Your task to perform on an android device: install app "WhatsApp Messenger" Image 0: 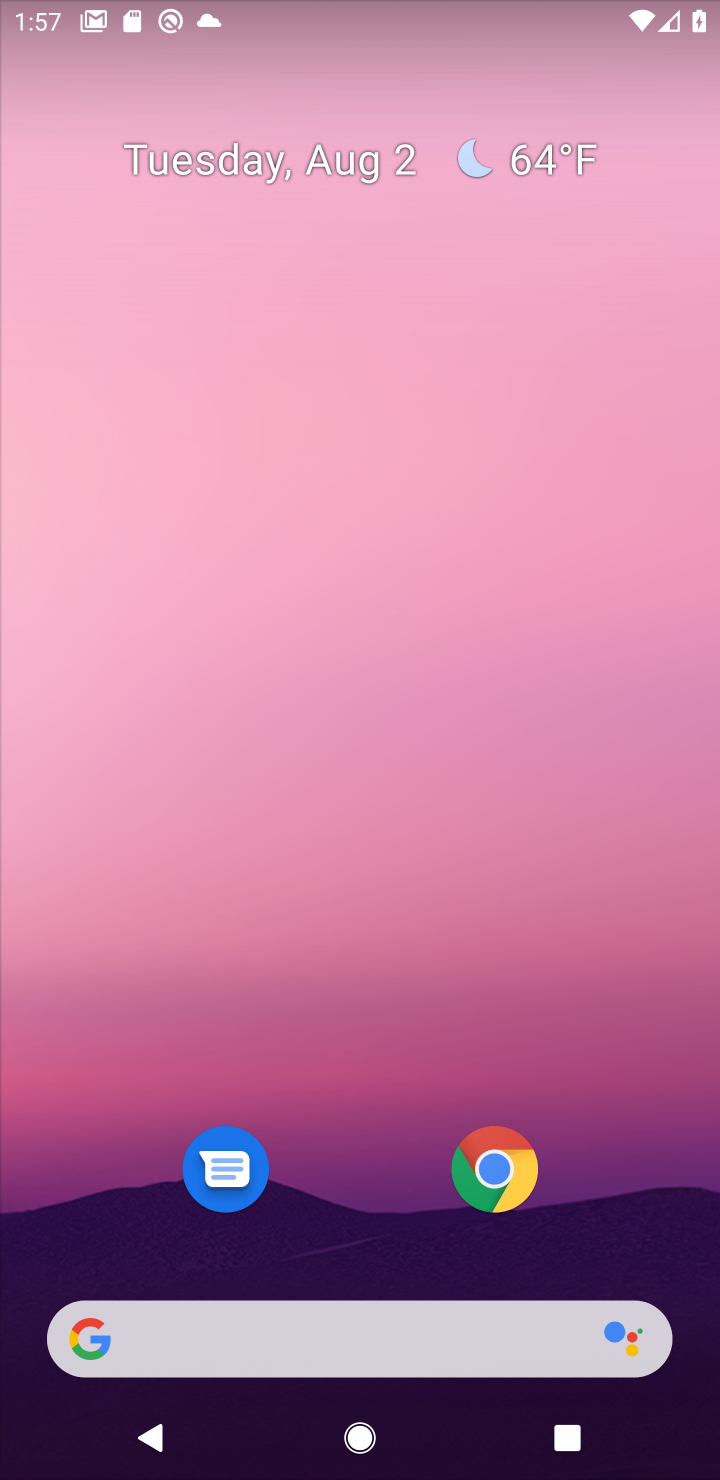
Step 0: drag from (379, 985) to (391, 341)
Your task to perform on an android device: install app "WhatsApp Messenger" Image 1: 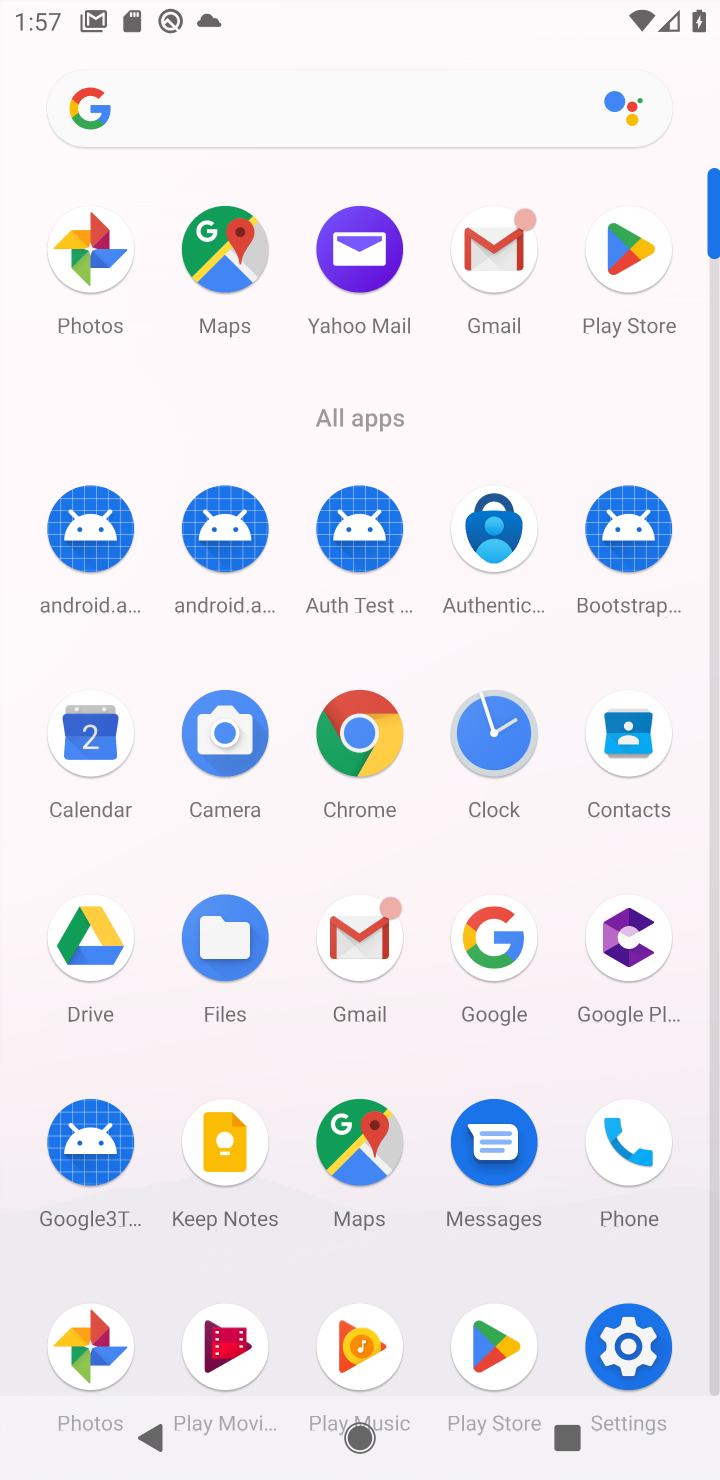
Step 1: click (617, 248)
Your task to perform on an android device: install app "WhatsApp Messenger" Image 2: 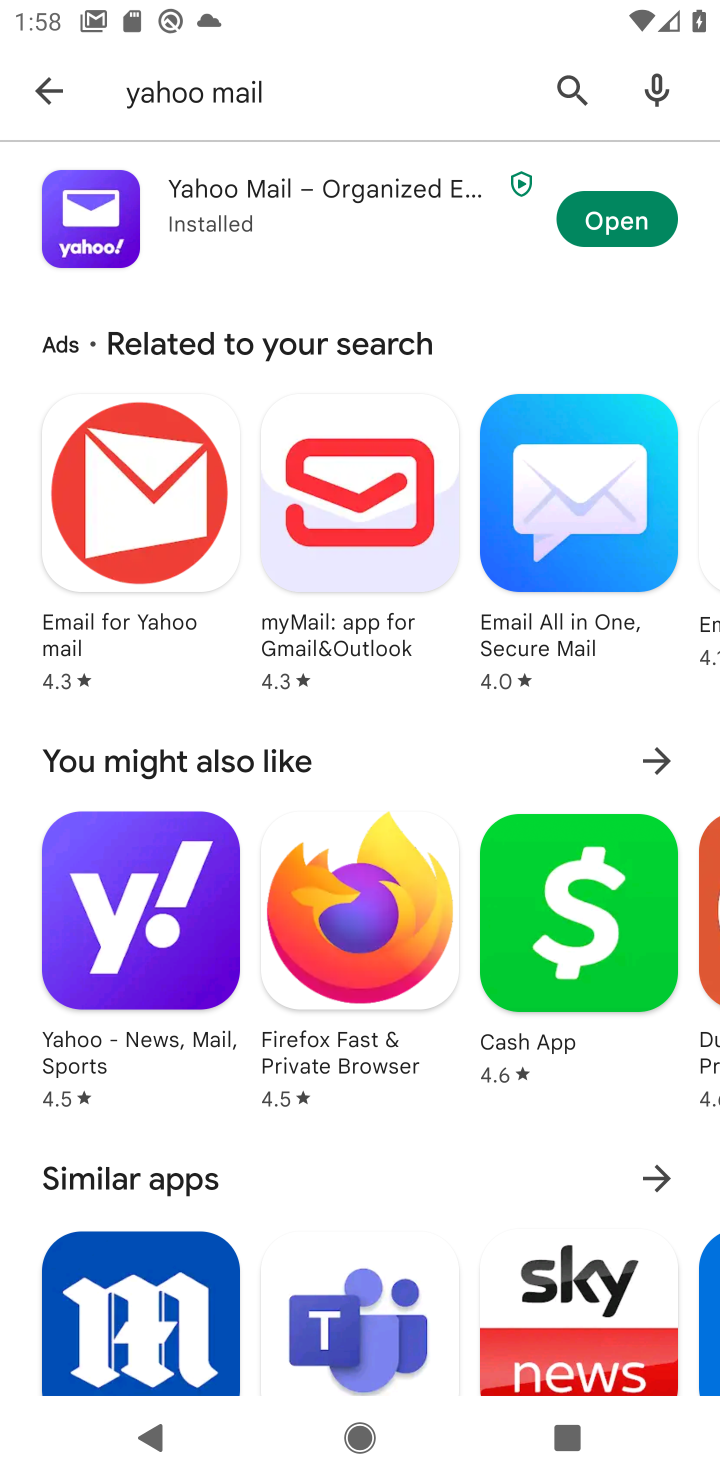
Step 2: click (571, 87)
Your task to perform on an android device: install app "WhatsApp Messenger" Image 3: 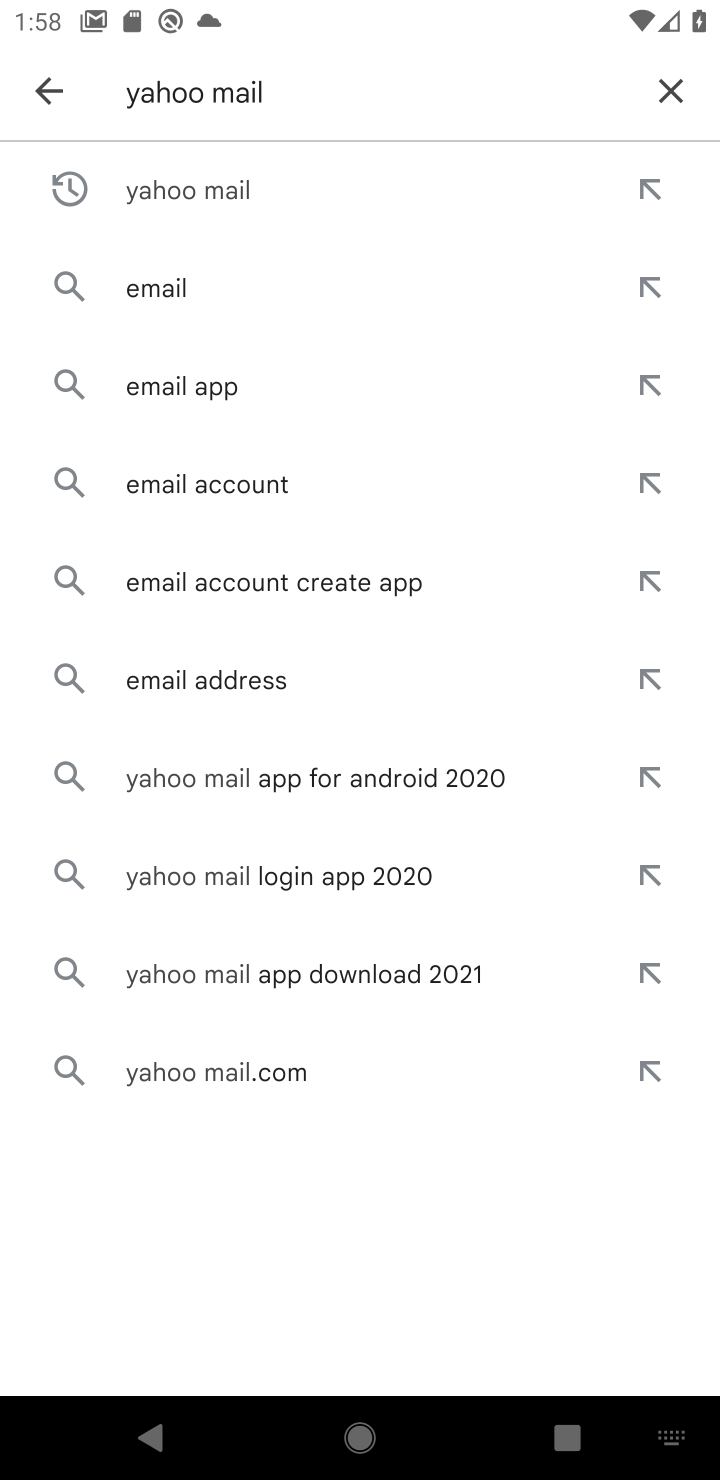
Step 3: click (676, 89)
Your task to perform on an android device: install app "WhatsApp Messenger" Image 4: 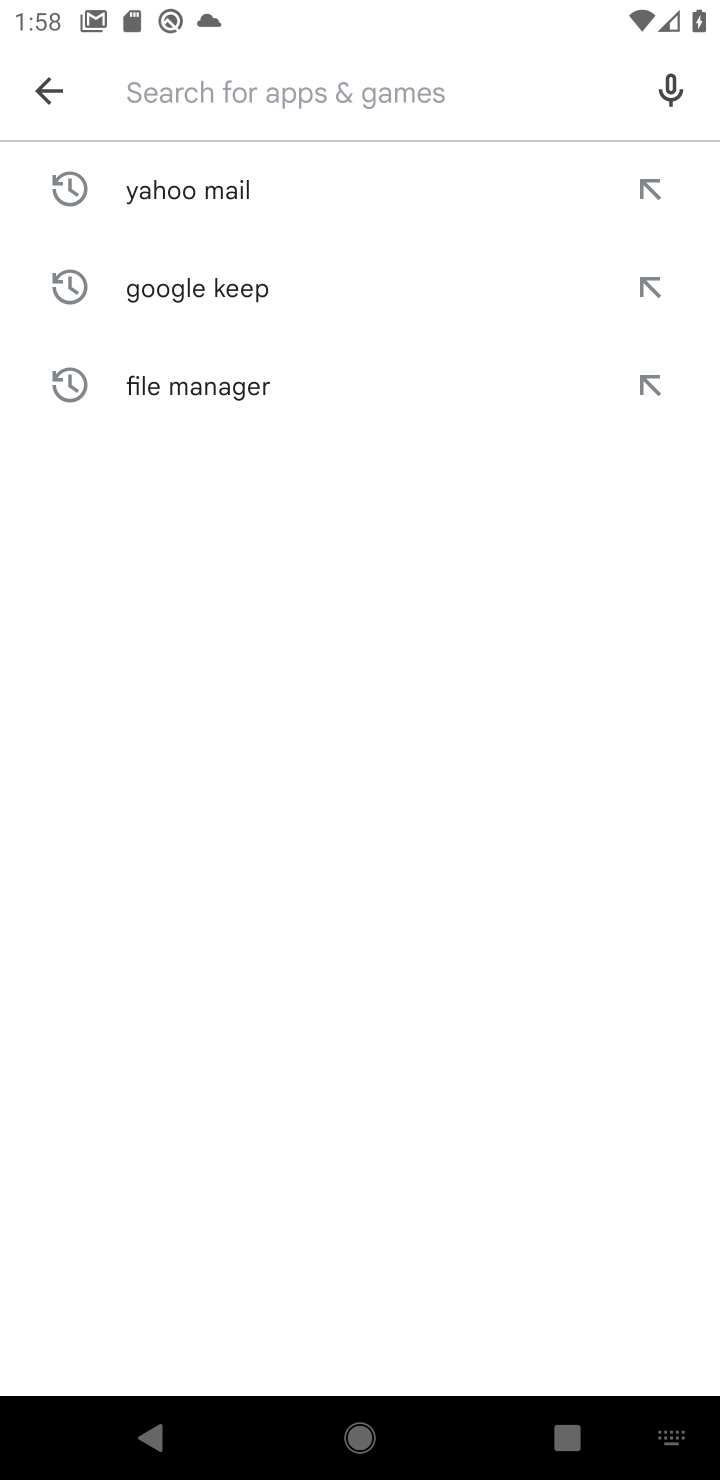
Step 4: type "WhatsApp Messenger"
Your task to perform on an android device: install app "WhatsApp Messenger" Image 5: 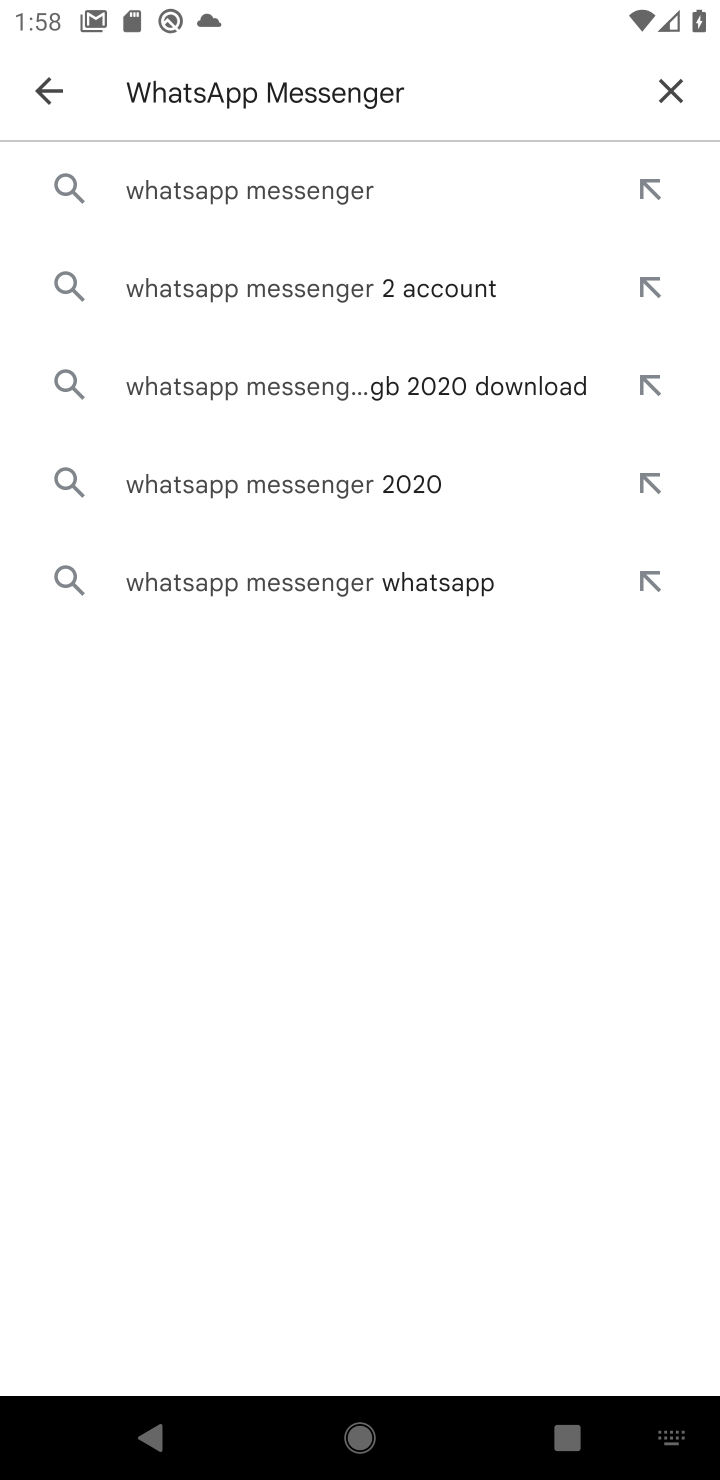
Step 5: click (353, 186)
Your task to perform on an android device: install app "WhatsApp Messenger" Image 6: 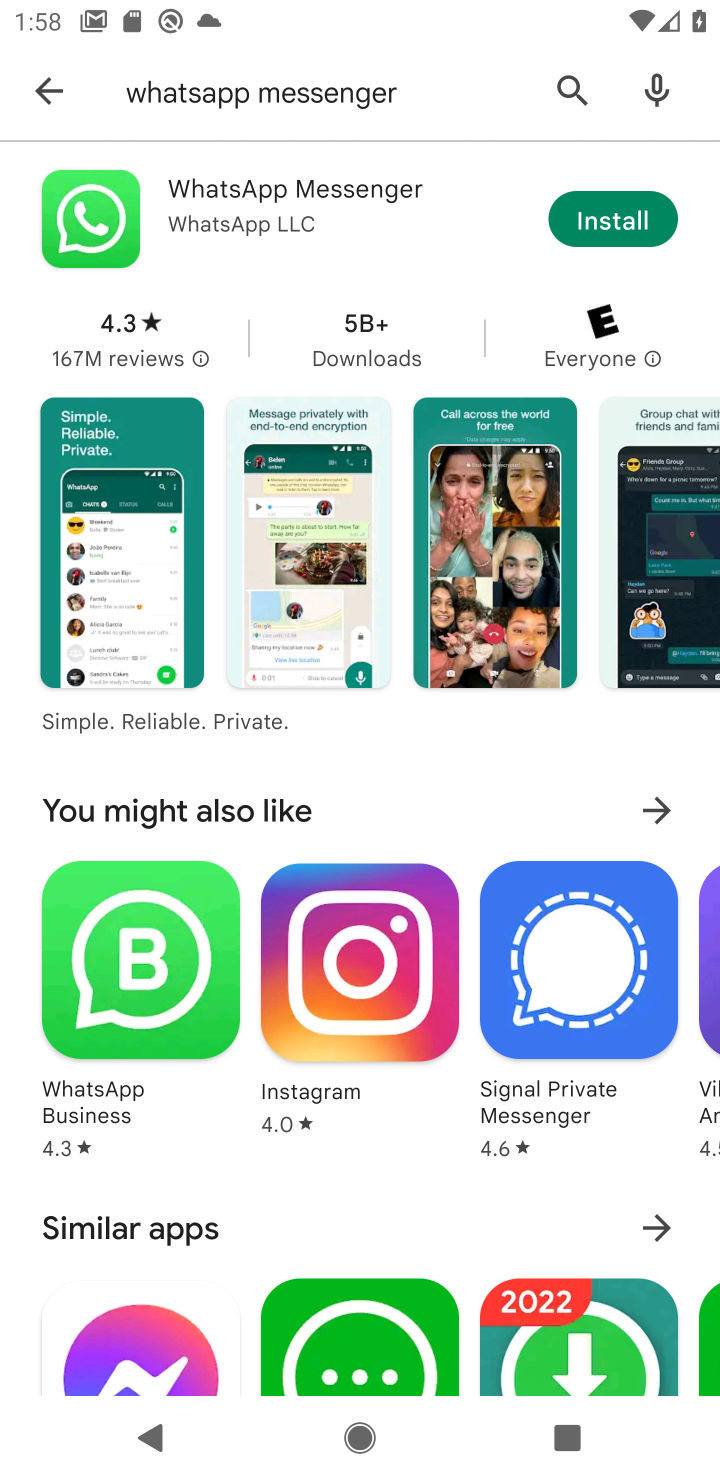
Step 6: click (621, 215)
Your task to perform on an android device: install app "WhatsApp Messenger" Image 7: 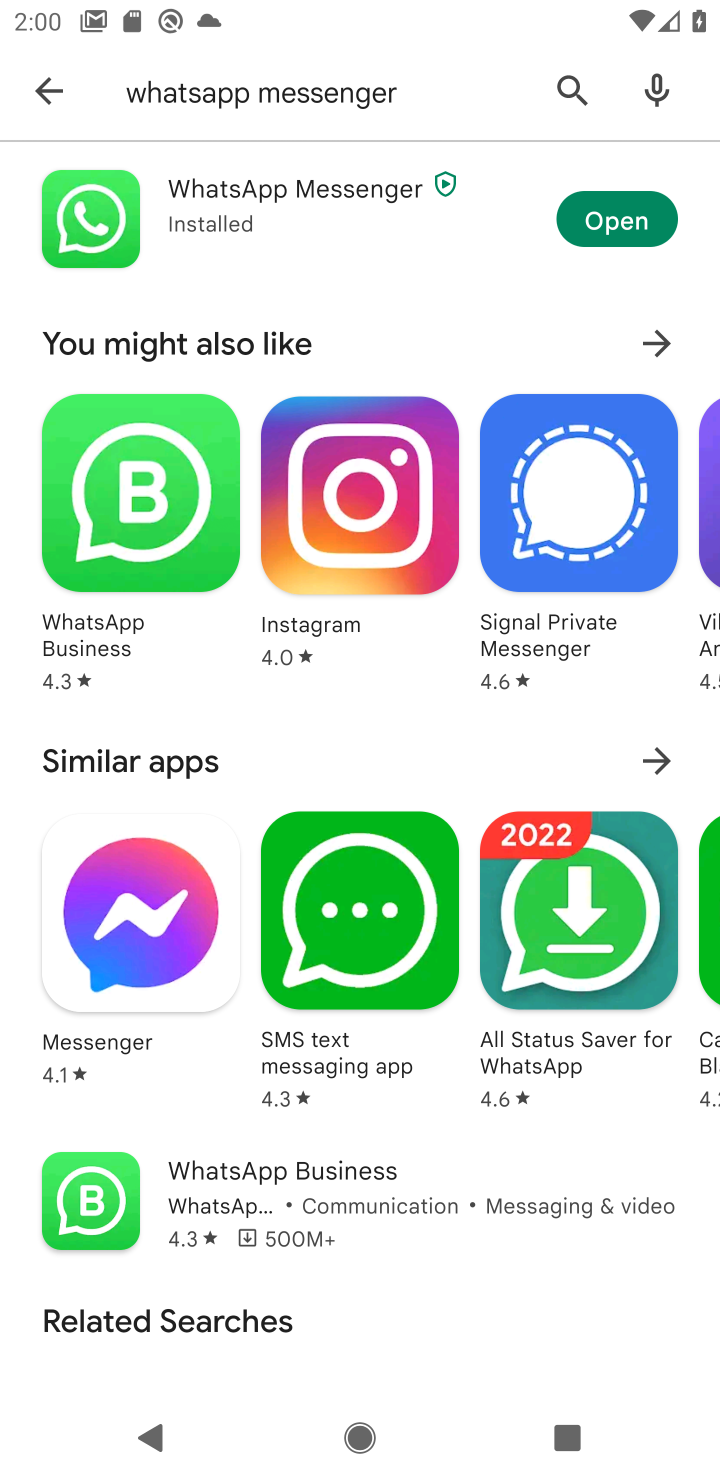
Step 7: click (609, 231)
Your task to perform on an android device: install app "WhatsApp Messenger" Image 8: 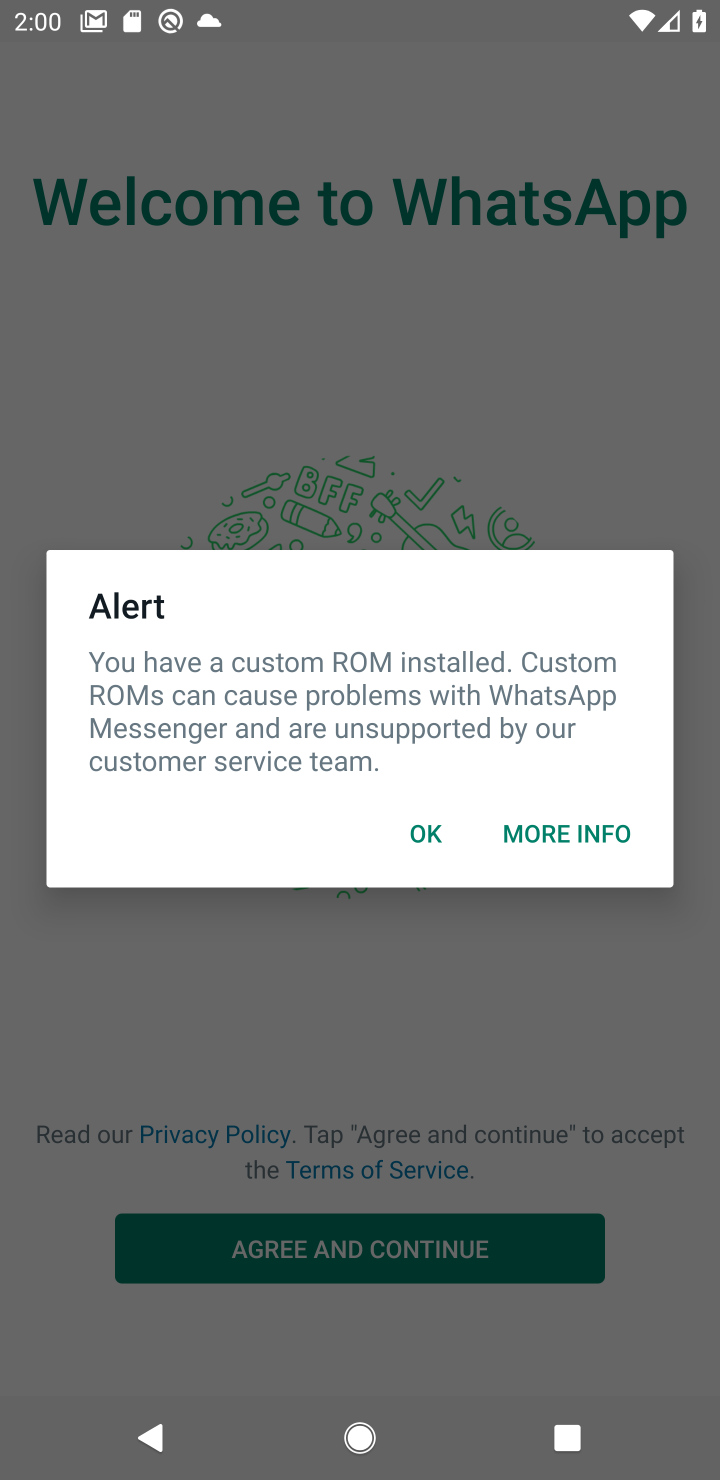
Step 8: click (434, 830)
Your task to perform on an android device: install app "WhatsApp Messenger" Image 9: 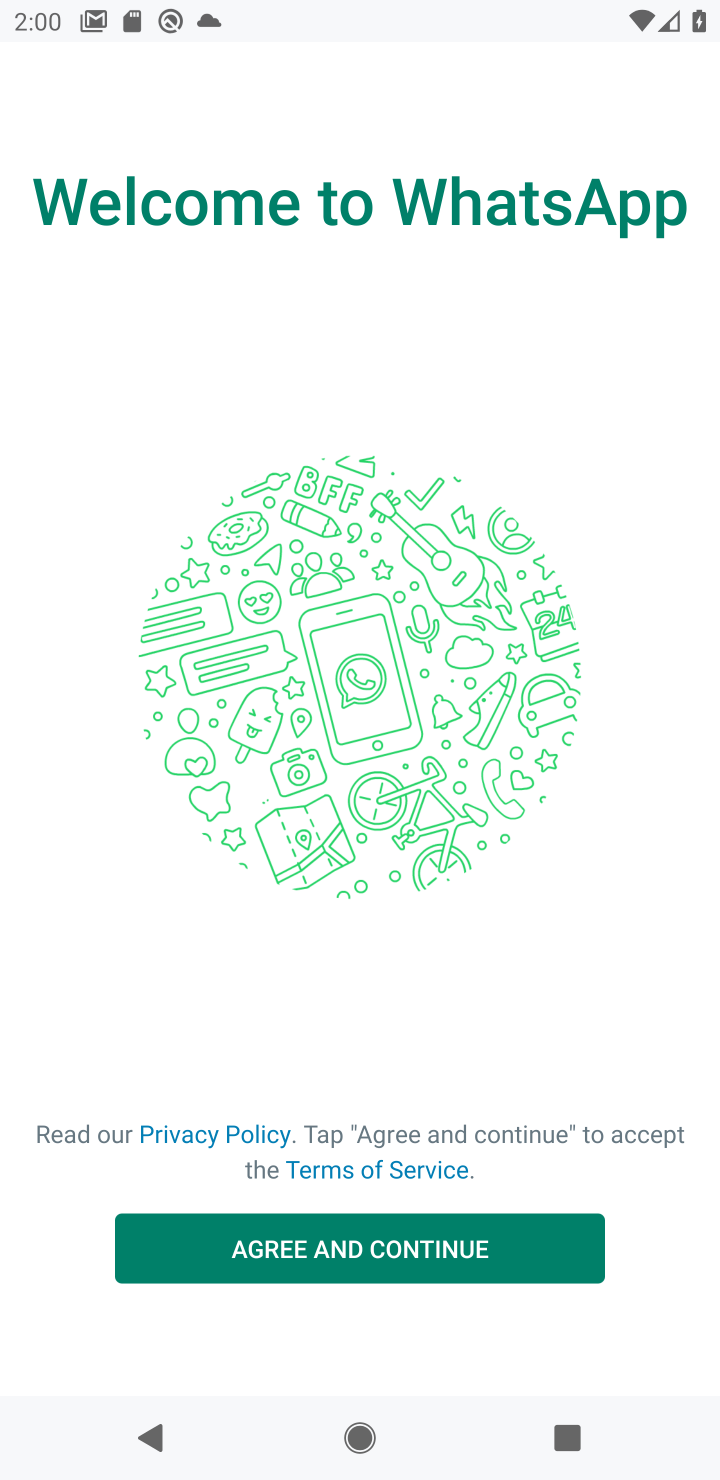
Step 9: click (380, 1249)
Your task to perform on an android device: install app "WhatsApp Messenger" Image 10: 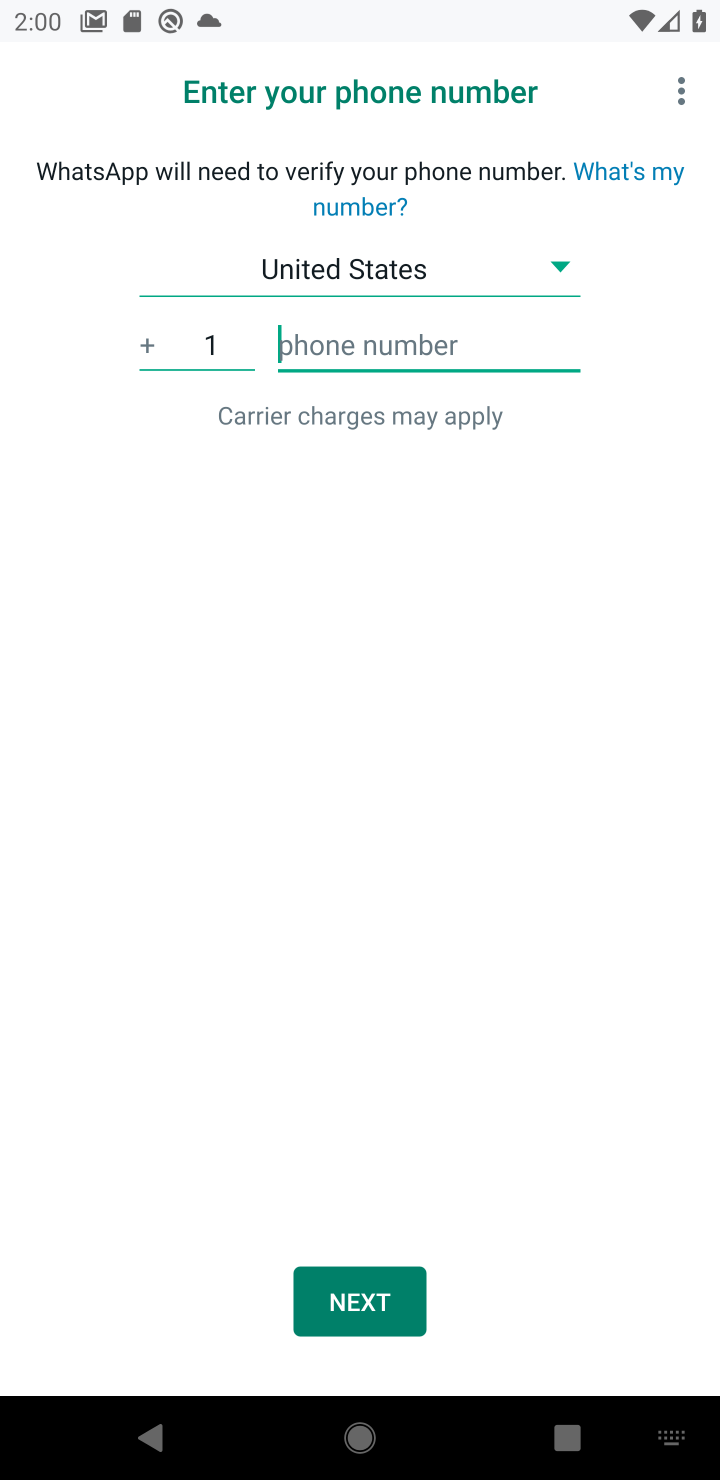
Step 10: task complete